Your task to perform on an android device: turn pop-ups off in chrome Image 0: 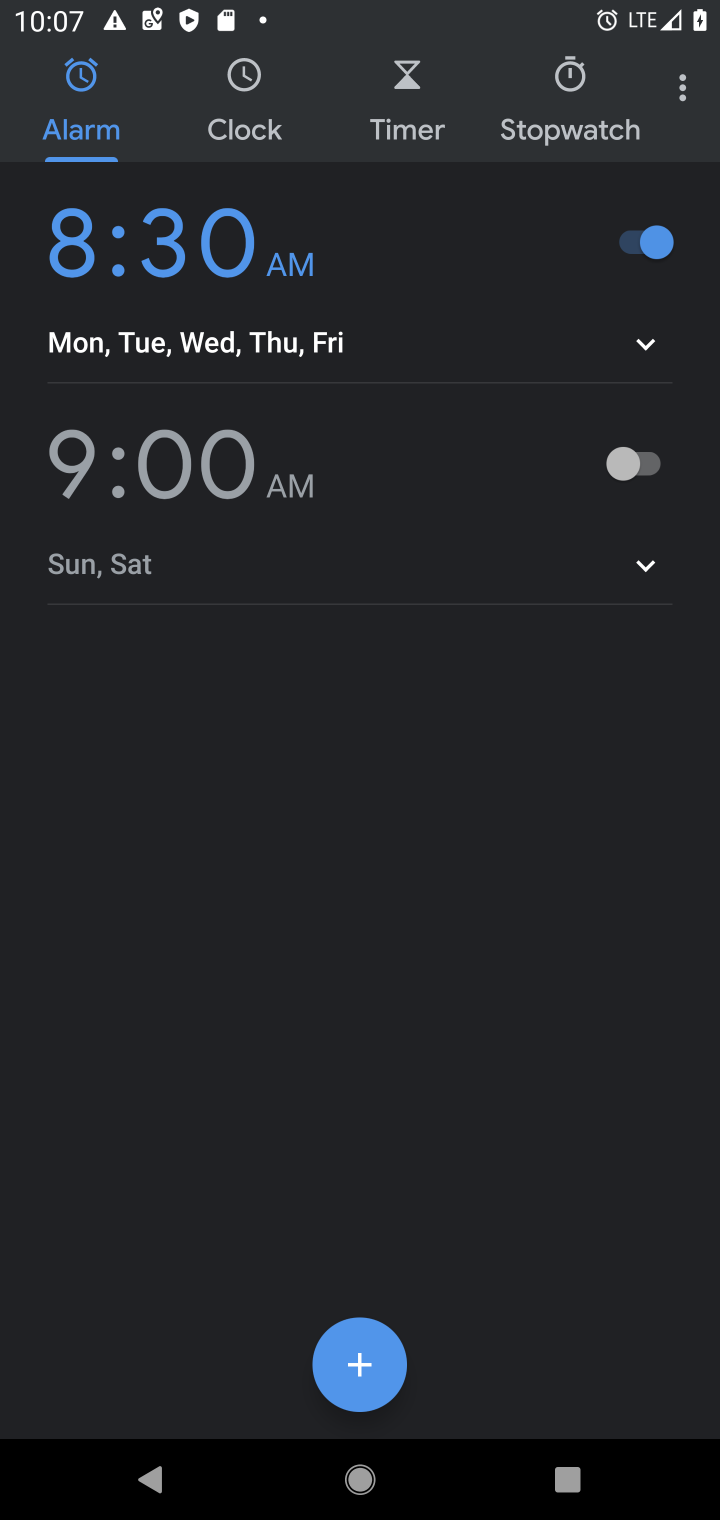
Step 0: press home button
Your task to perform on an android device: turn pop-ups off in chrome Image 1: 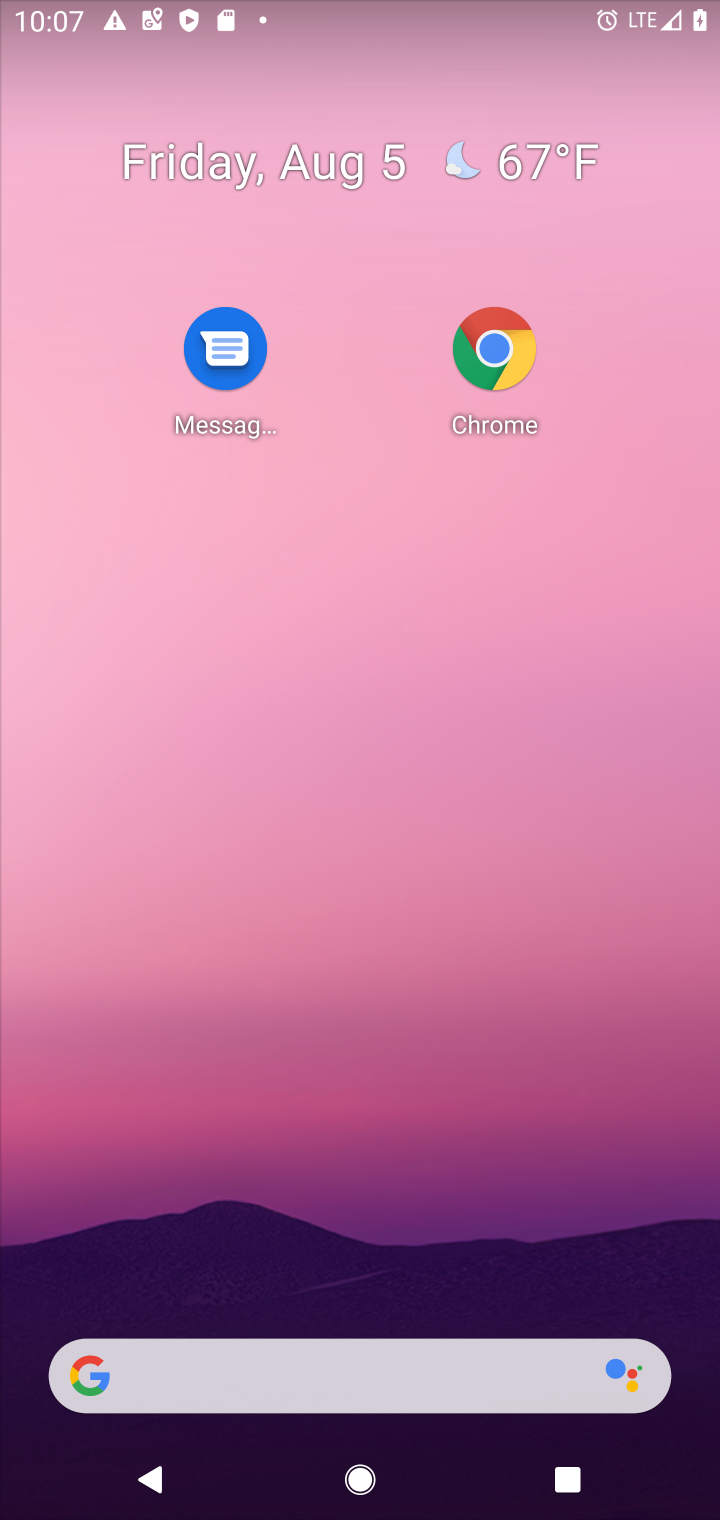
Step 1: drag from (452, 1328) to (324, 392)
Your task to perform on an android device: turn pop-ups off in chrome Image 2: 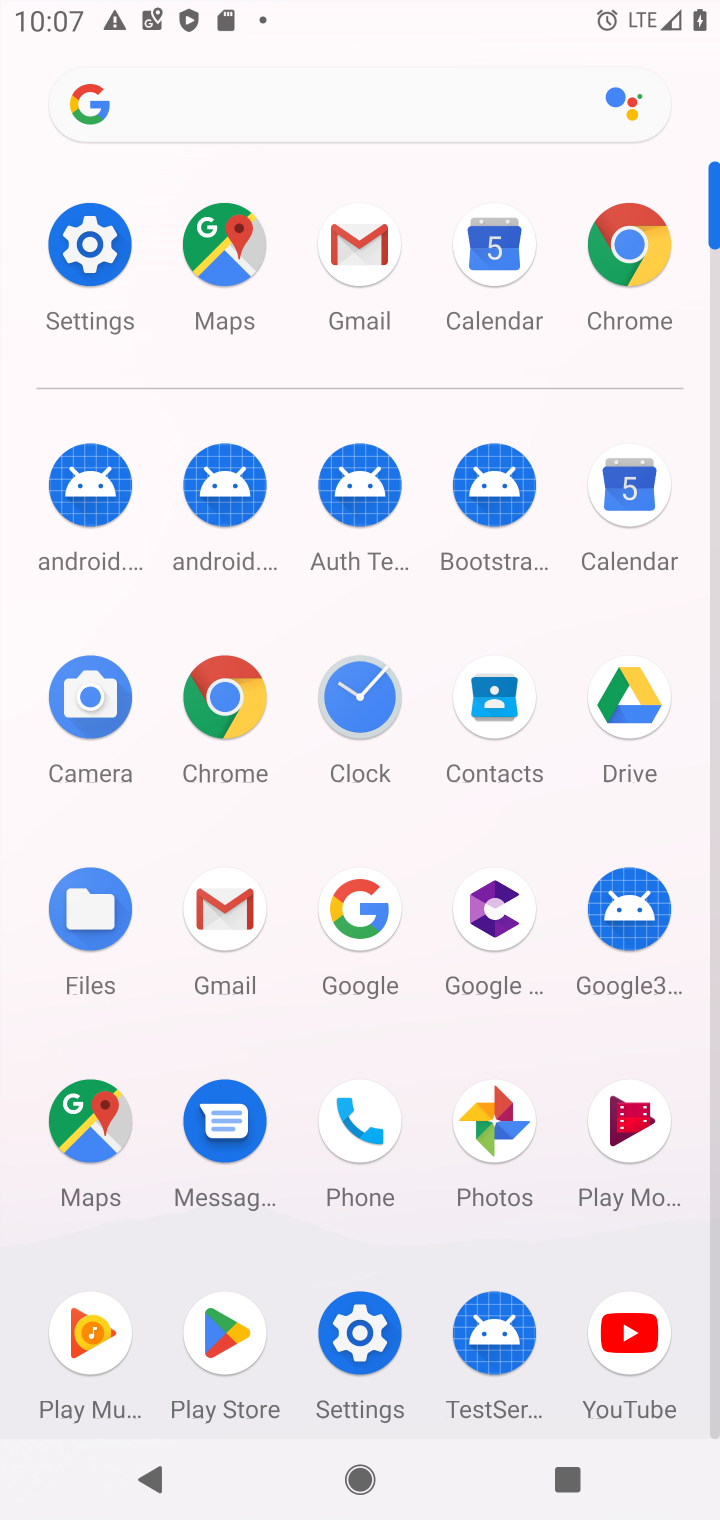
Step 2: click (638, 251)
Your task to perform on an android device: turn pop-ups off in chrome Image 3: 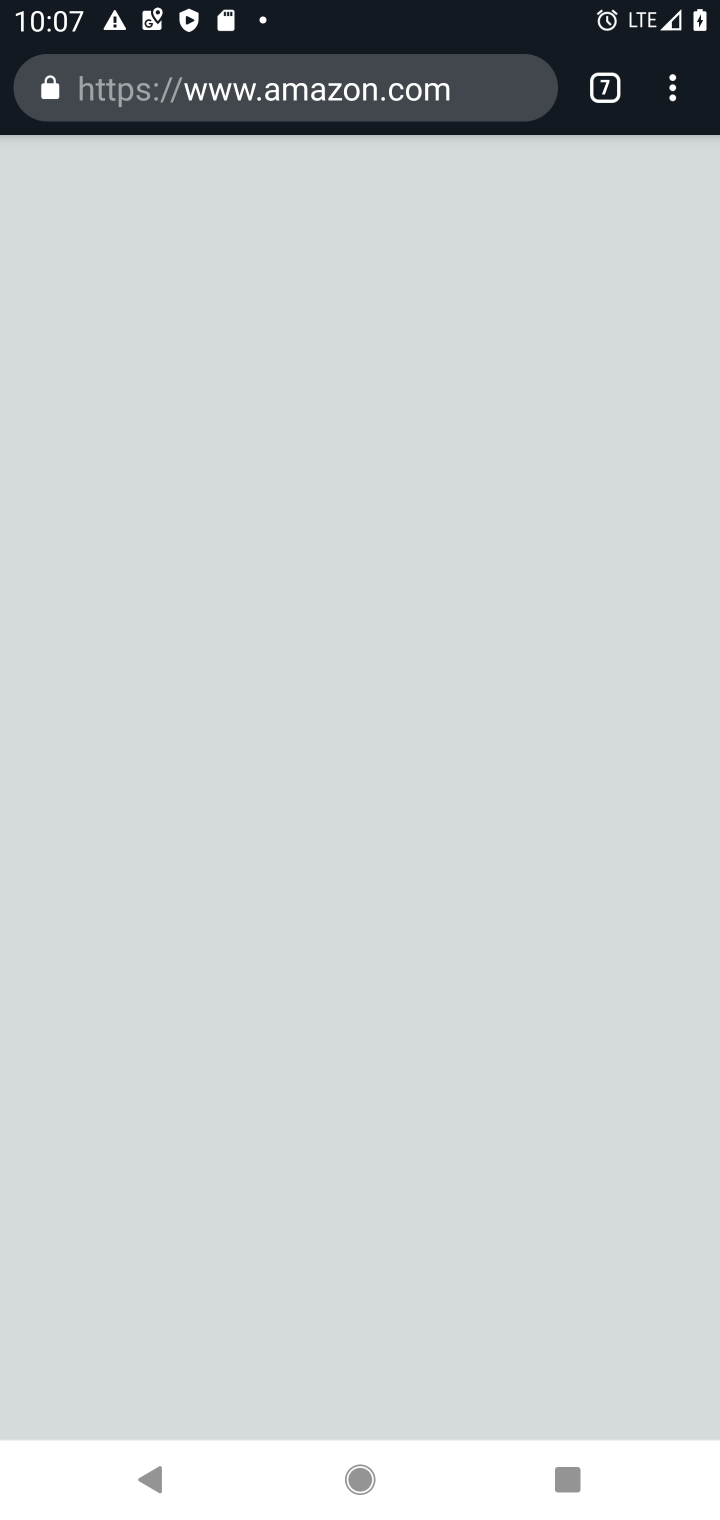
Step 3: click (666, 104)
Your task to perform on an android device: turn pop-ups off in chrome Image 4: 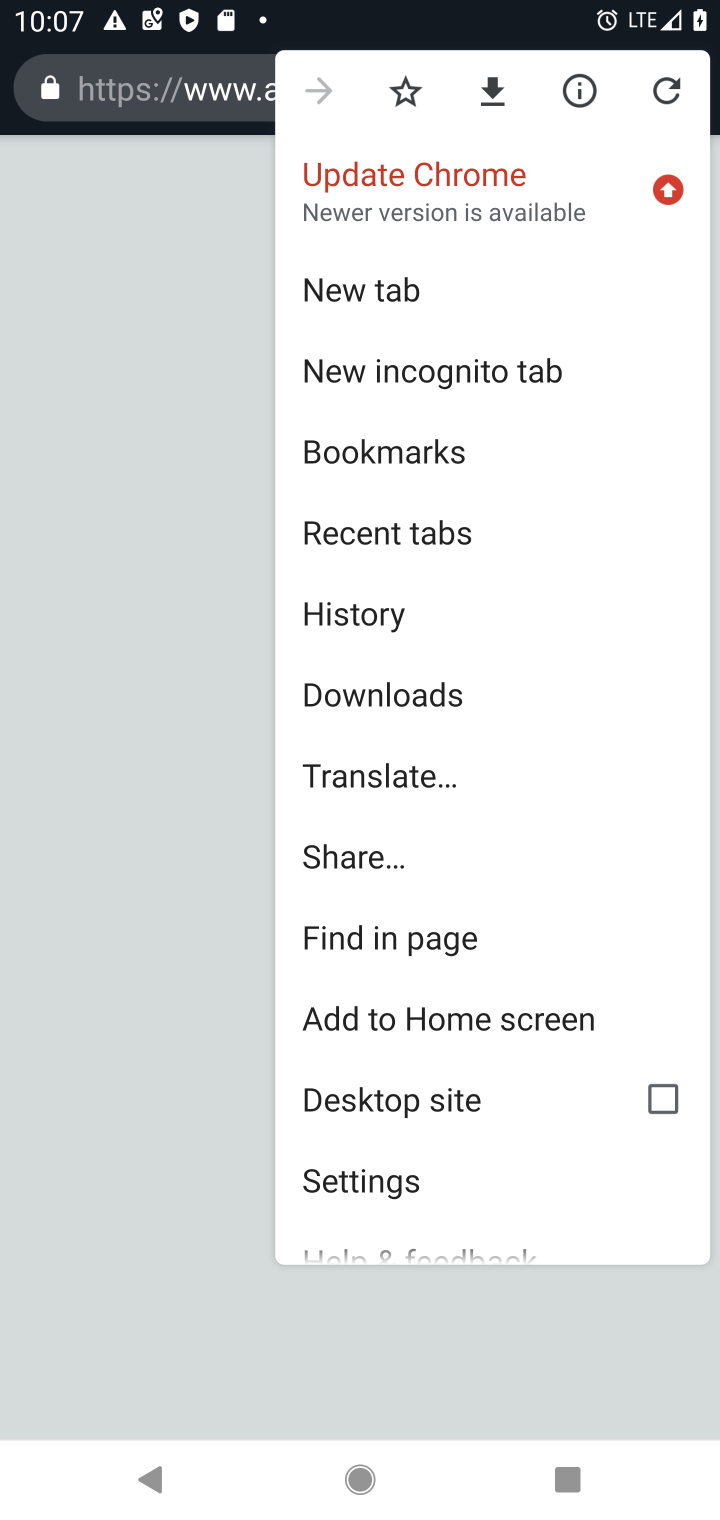
Step 4: click (377, 1176)
Your task to perform on an android device: turn pop-ups off in chrome Image 5: 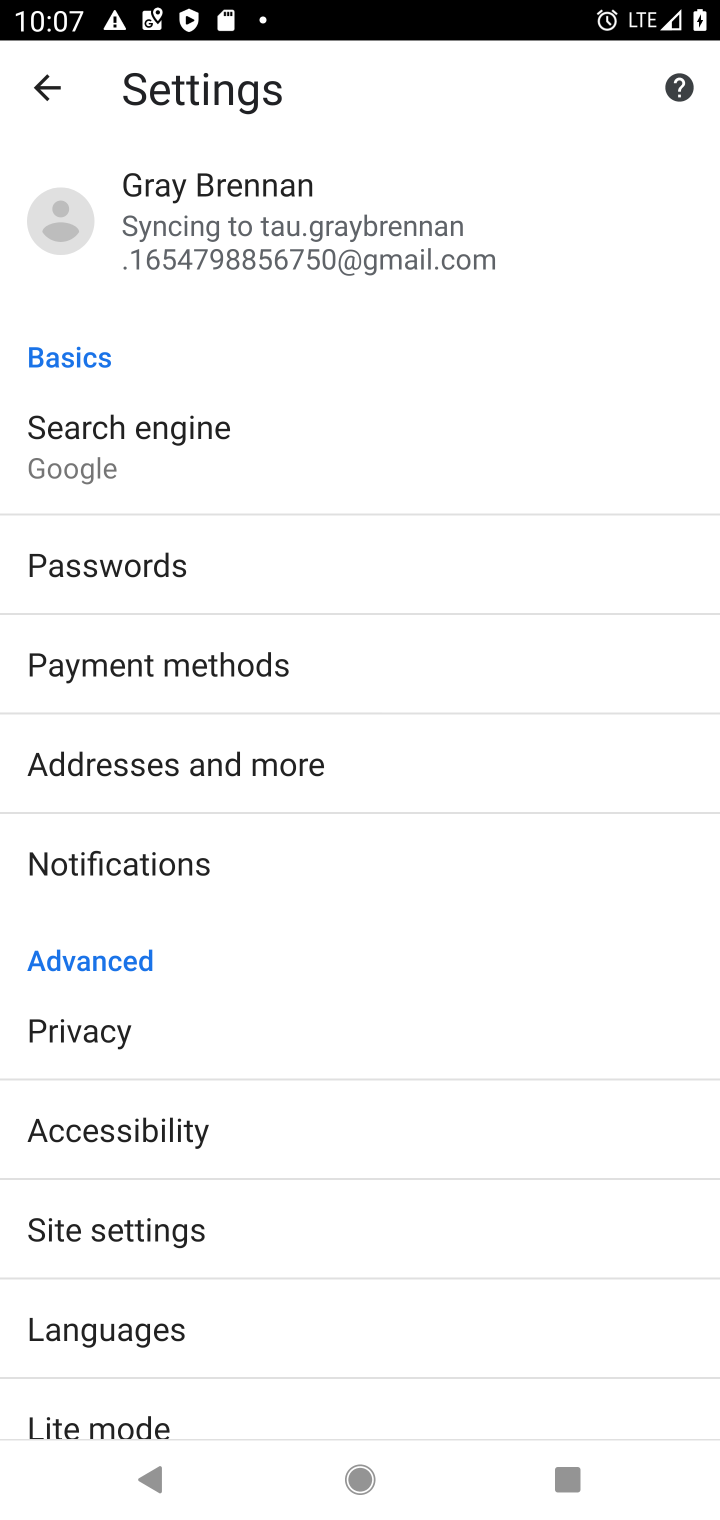
Step 5: click (157, 1213)
Your task to perform on an android device: turn pop-ups off in chrome Image 6: 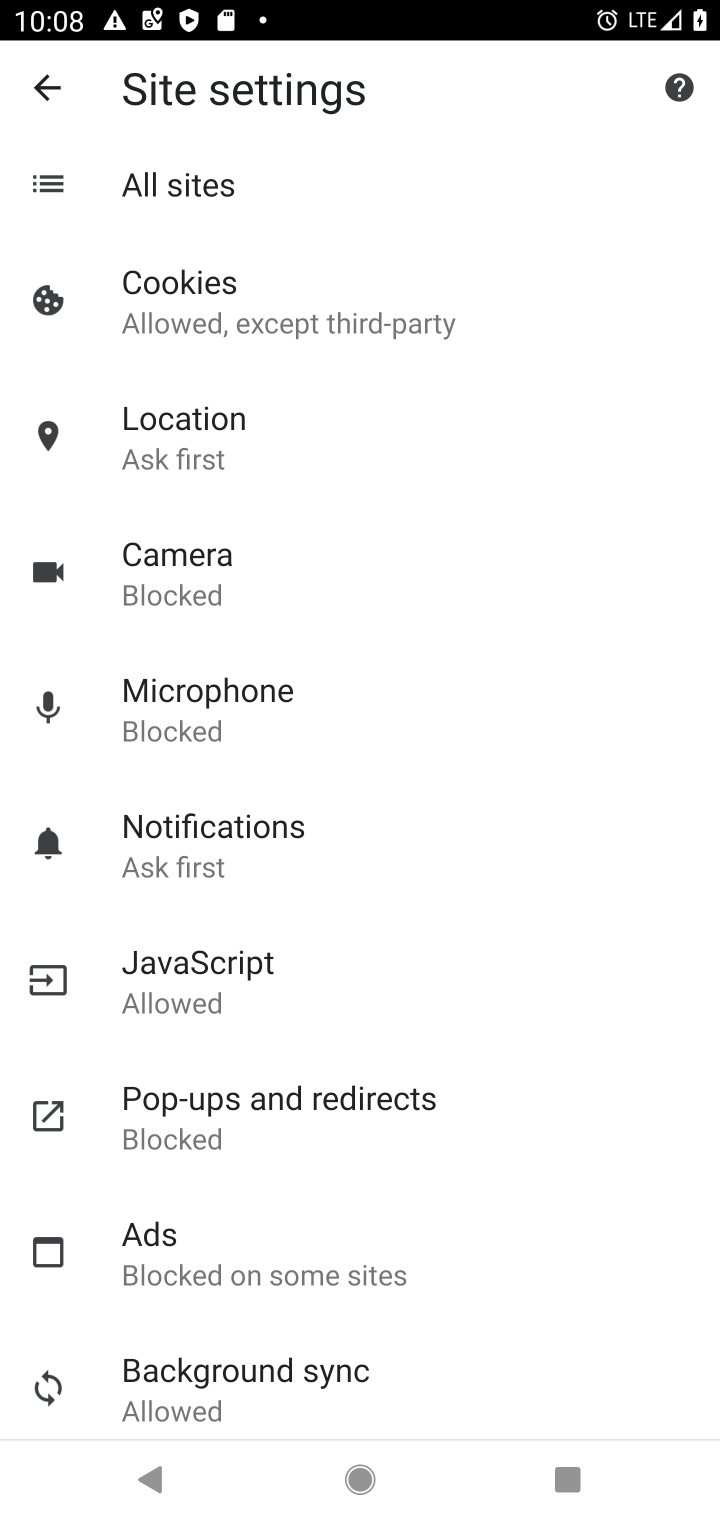
Step 6: click (233, 1109)
Your task to perform on an android device: turn pop-ups off in chrome Image 7: 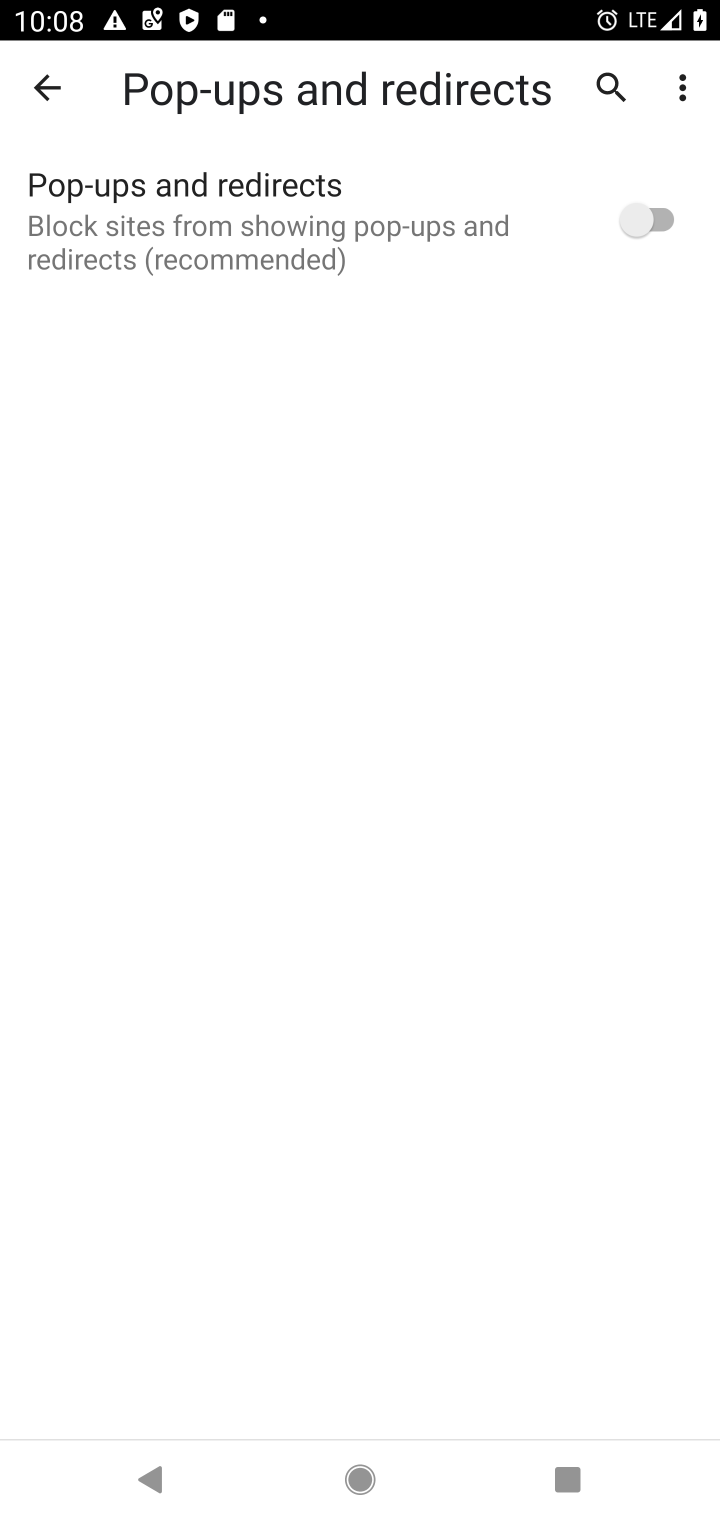
Step 7: click (634, 233)
Your task to perform on an android device: turn pop-ups off in chrome Image 8: 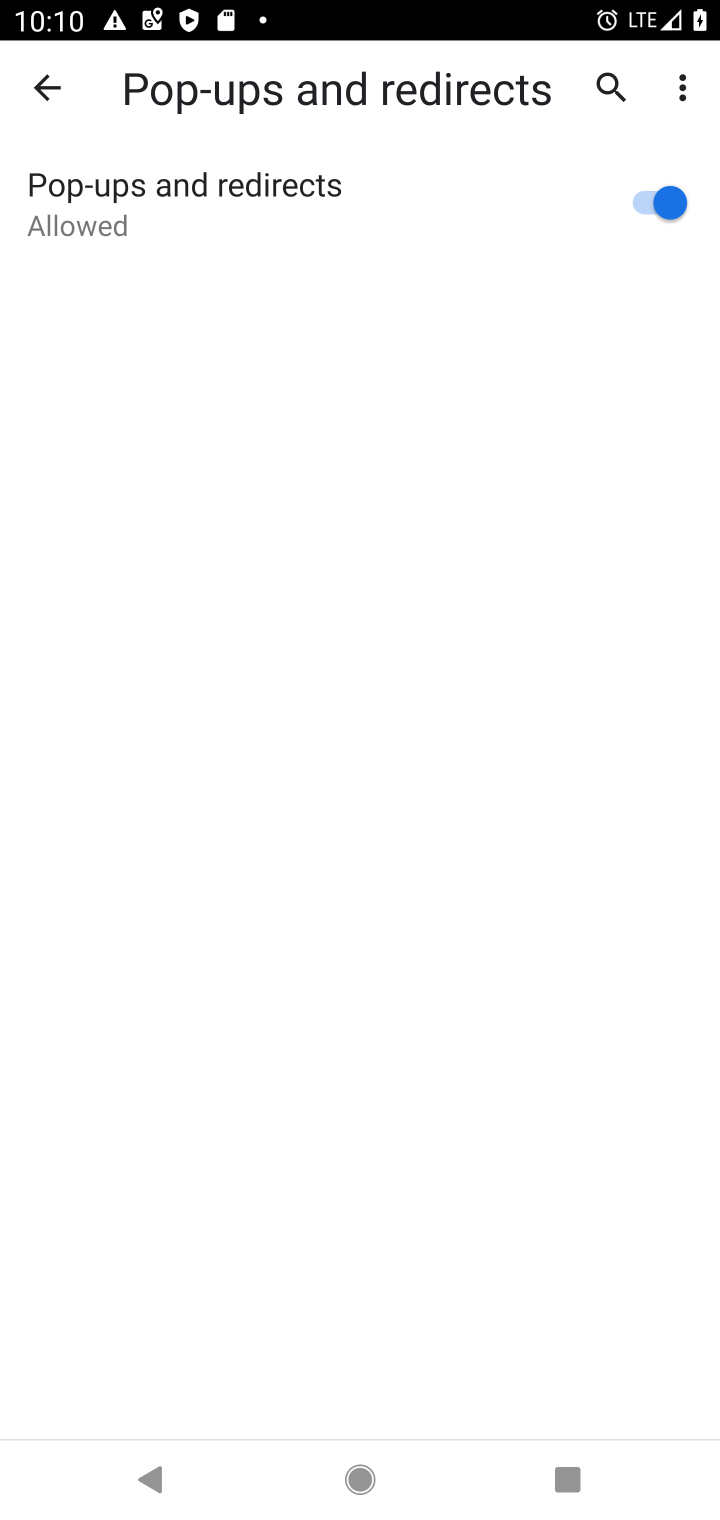
Step 8: task complete